Your task to perform on an android device: Add razer thresher to the cart on bestbuy Image 0: 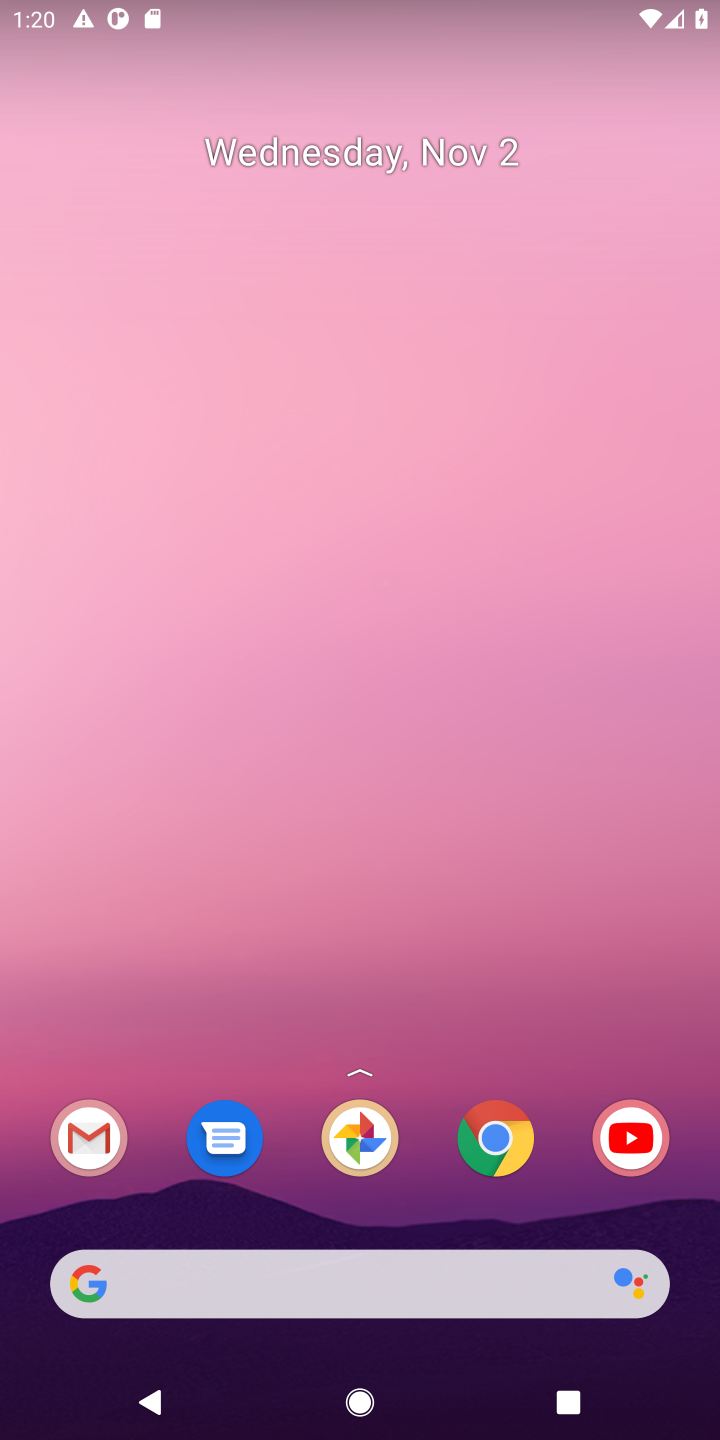
Step 0: click (488, 1152)
Your task to perform on an android device: Add razer thresher to the cart on bestbuy Image 1: 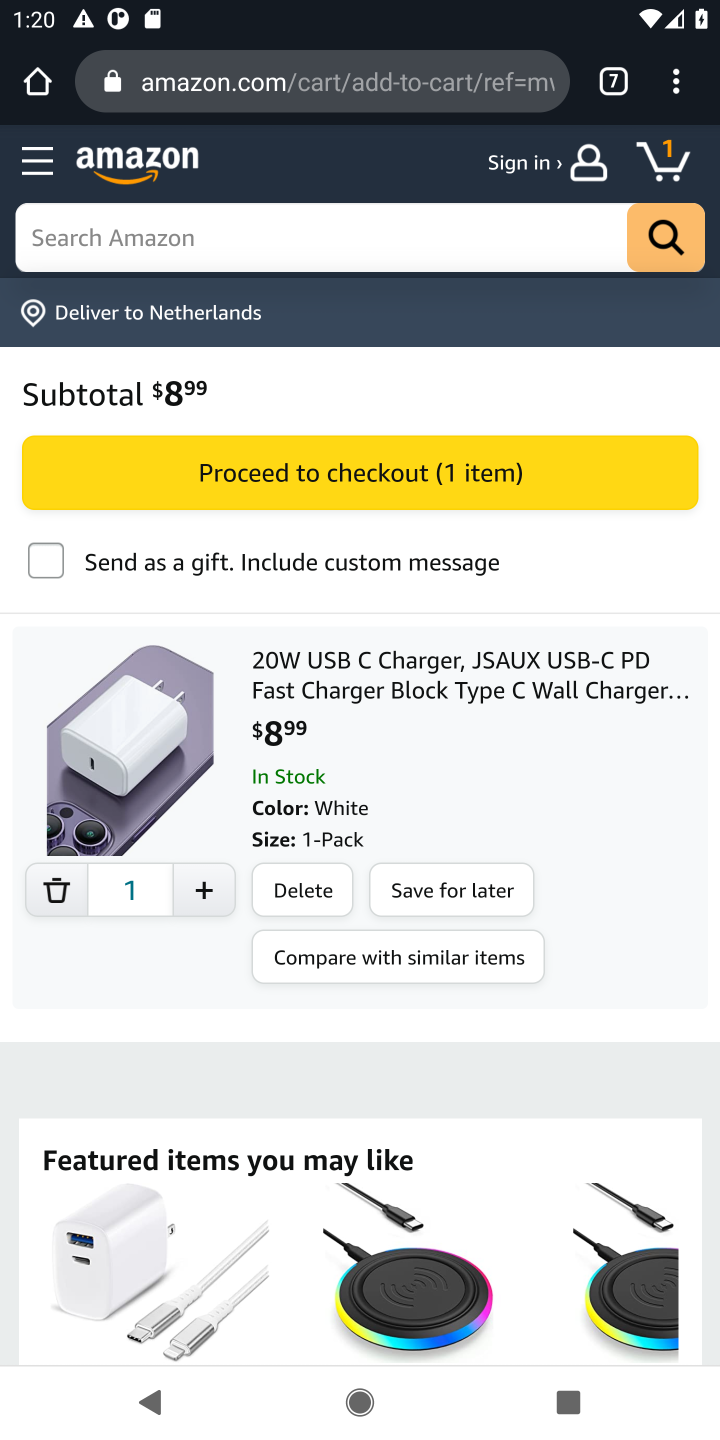
Step 1: click (619, 79)
Your task to perform on an android device: Add razer thresher to the cart on bestbuy Image 2: 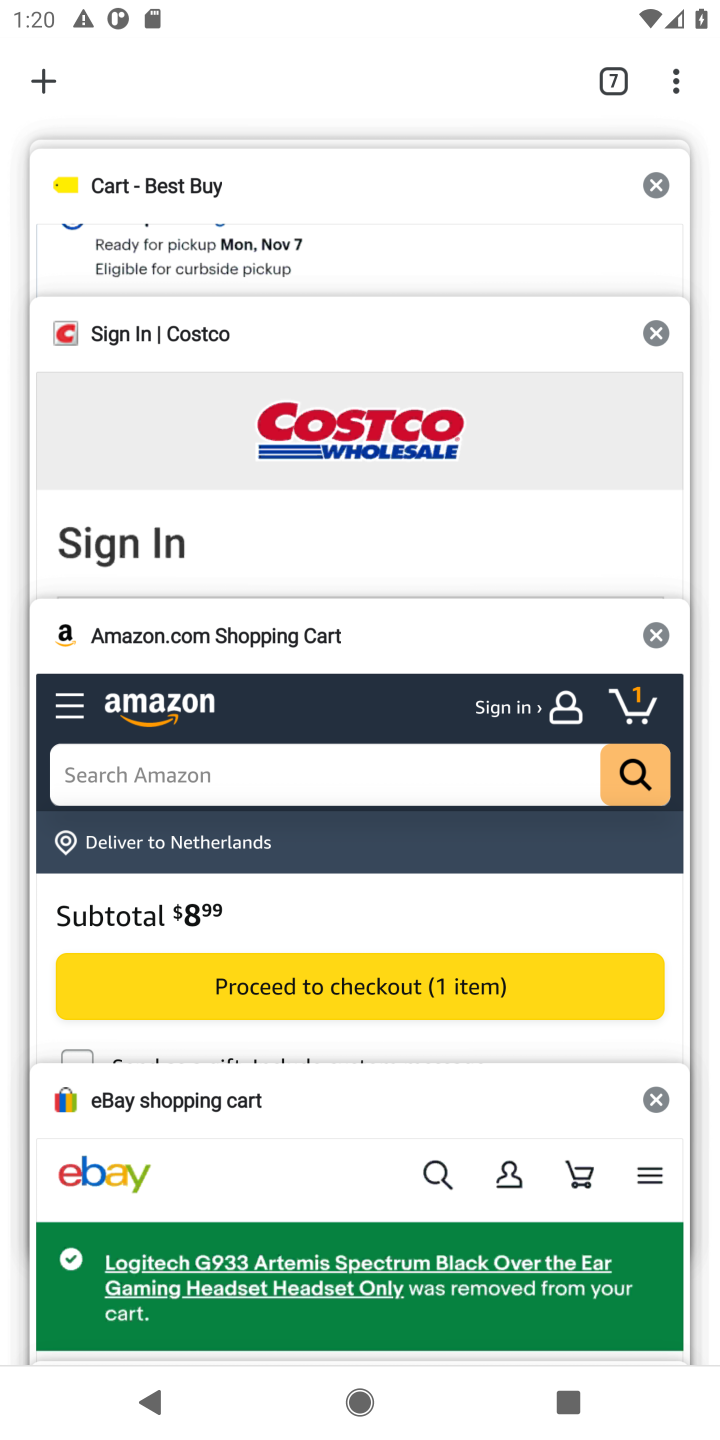
Step 2: click (404, 235)
Your task to perform on an android device: Add razer thresher to the cart on bestbuy Image 3: 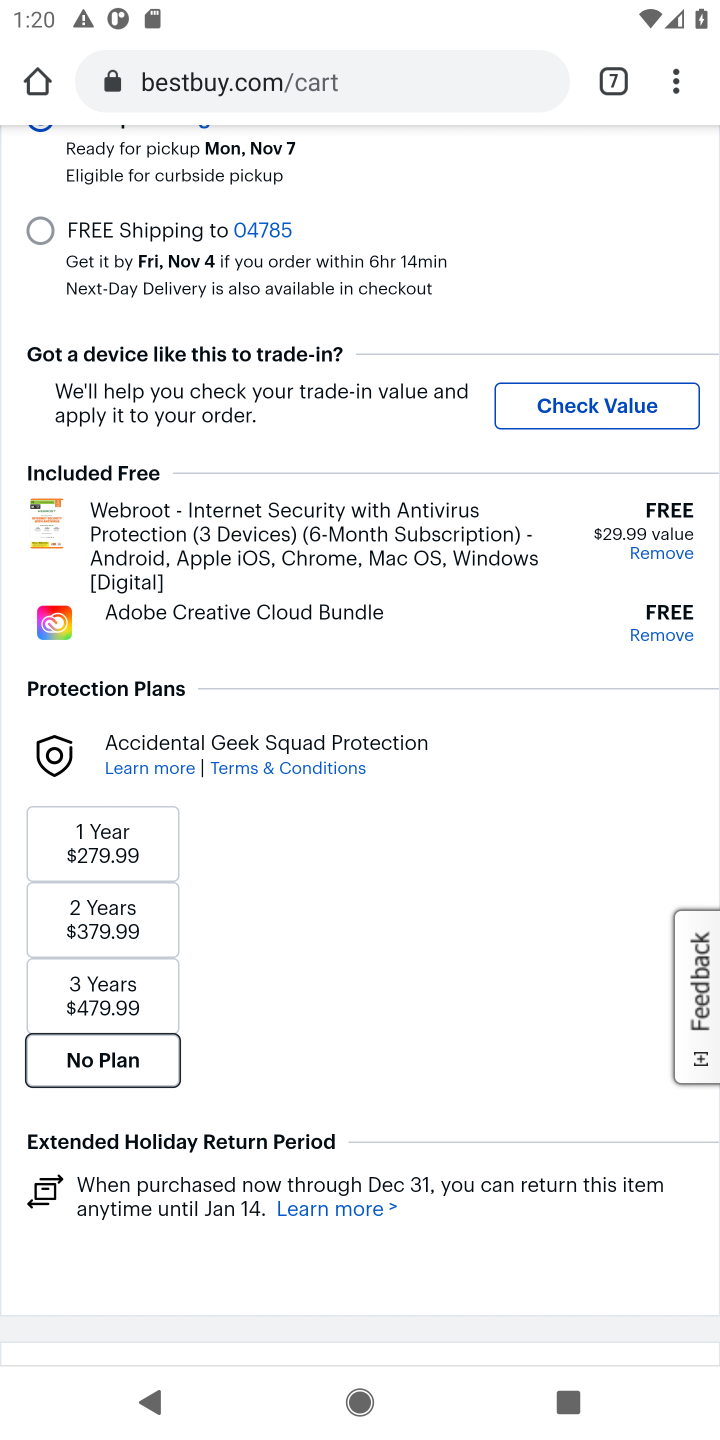
Step 3: drag from (542, 200) to (427, 805)
Your task to perform on an android device: Add razer thresher to the cart on bestbuy Image 4: 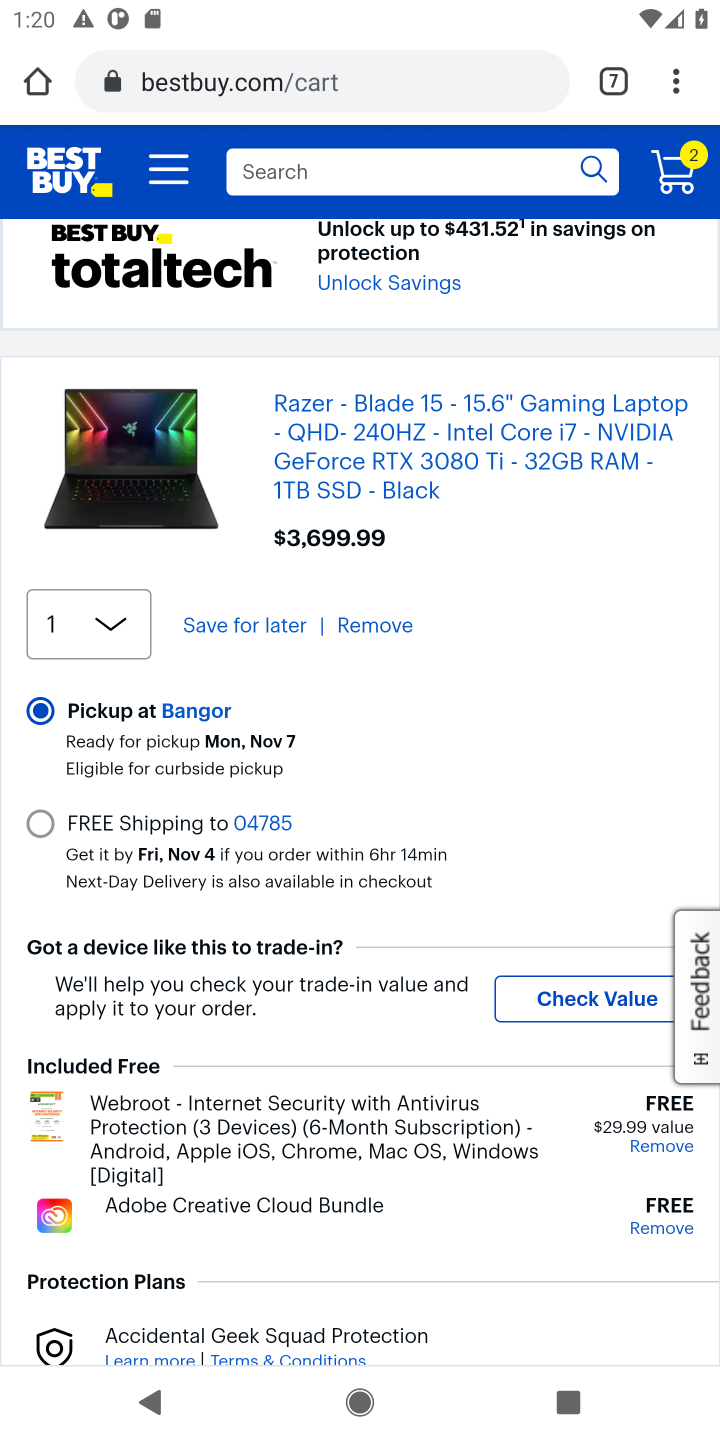
Step 4: click (510, 163)
Your task to perform on an android device: Add razer thresher to the cart on bestbuy Image 5: 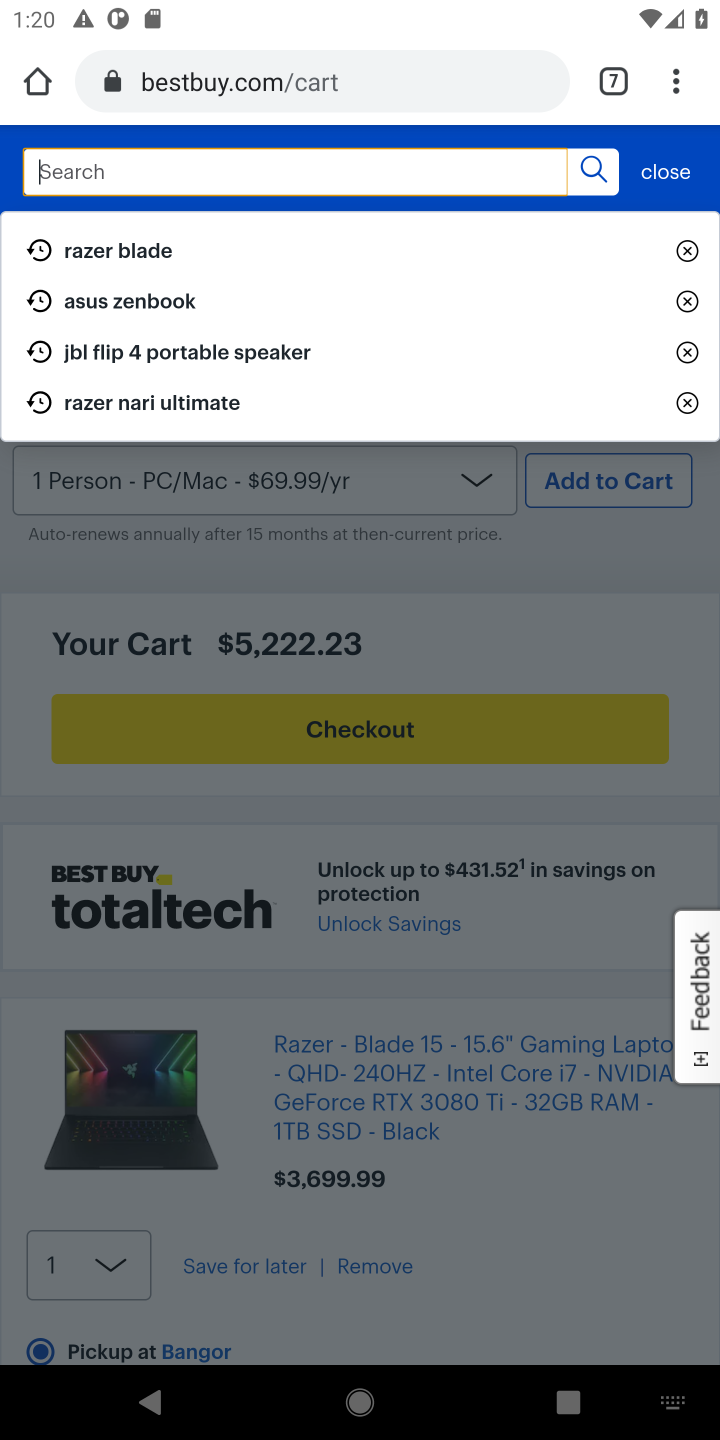
Step 5: type "razer thresher"
Your task to perform on an android device: Add razer thresher to the cart on bestbuy Image 6: 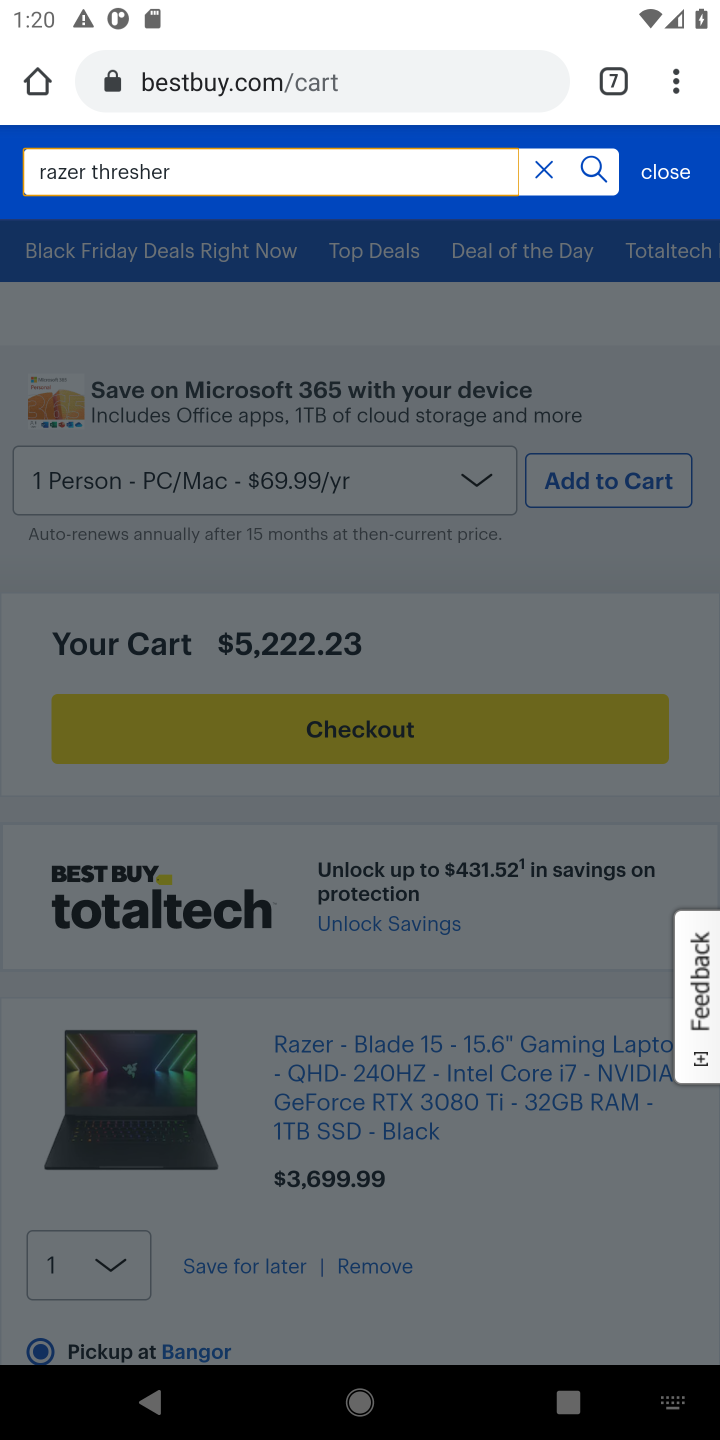
Step 6: click (603, 168)
Your task to perform on an android device: Add razer thresher to the cart on bestbuy Image 7: 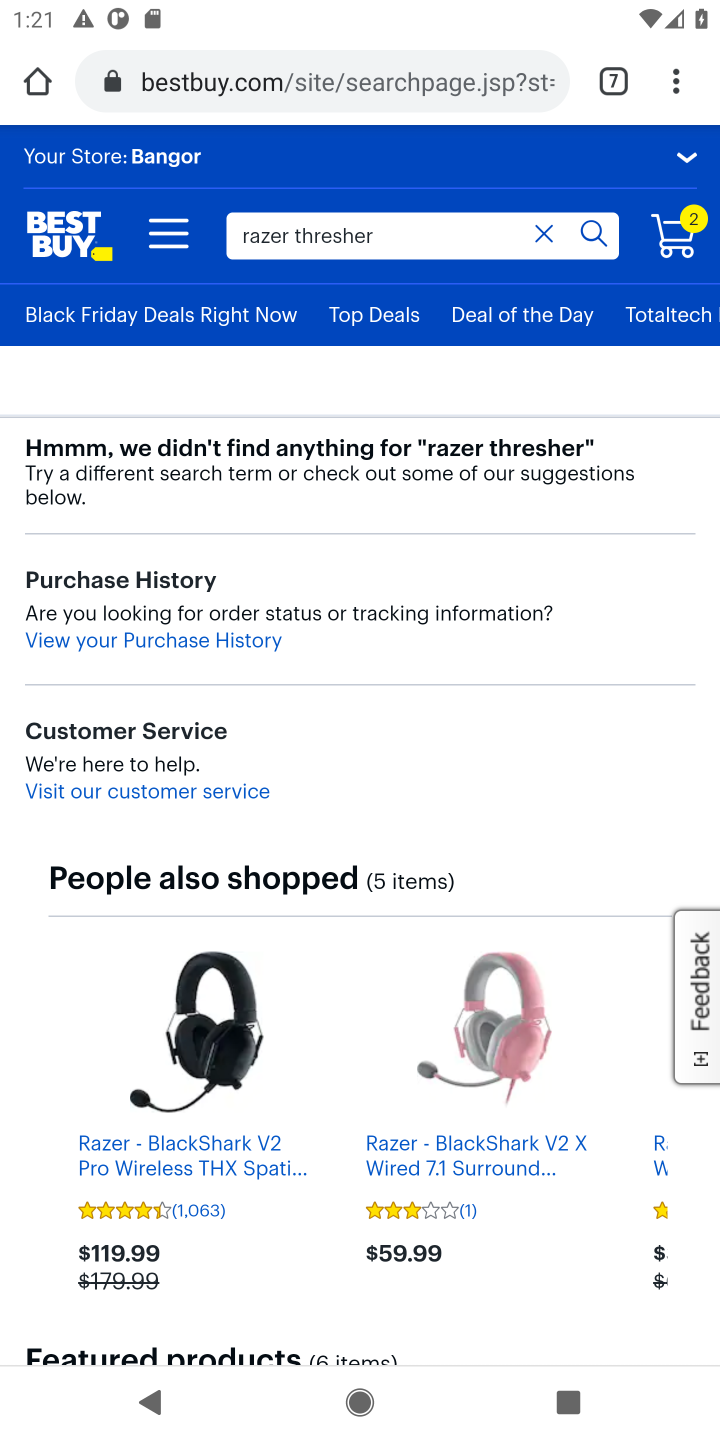
Step 7: click (545, 243)
Your task to perform on an android device: Add razer thresher to the cart on bestbuy Image 8: 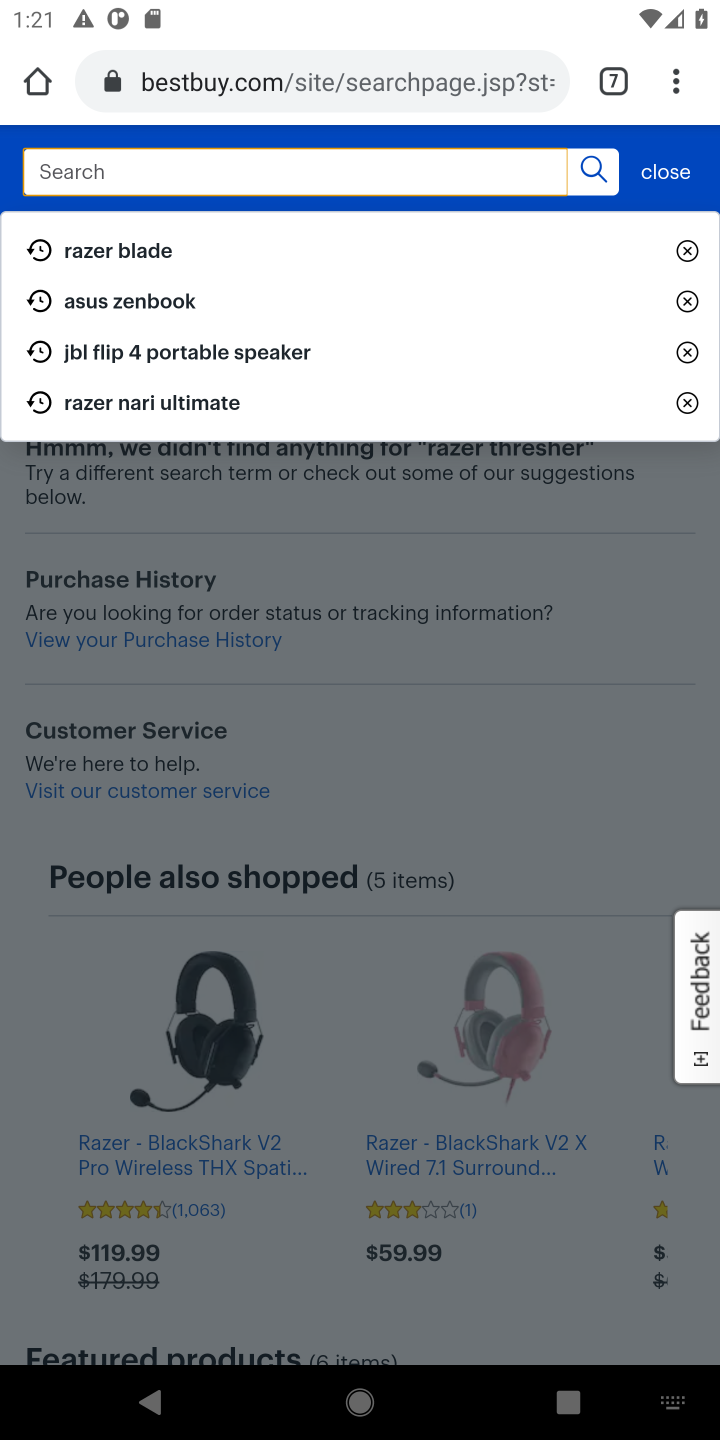
Step 8: type "thresher"
Your task to perform on an android device: Add razer thresher to the cart on bestbuy Image 9: 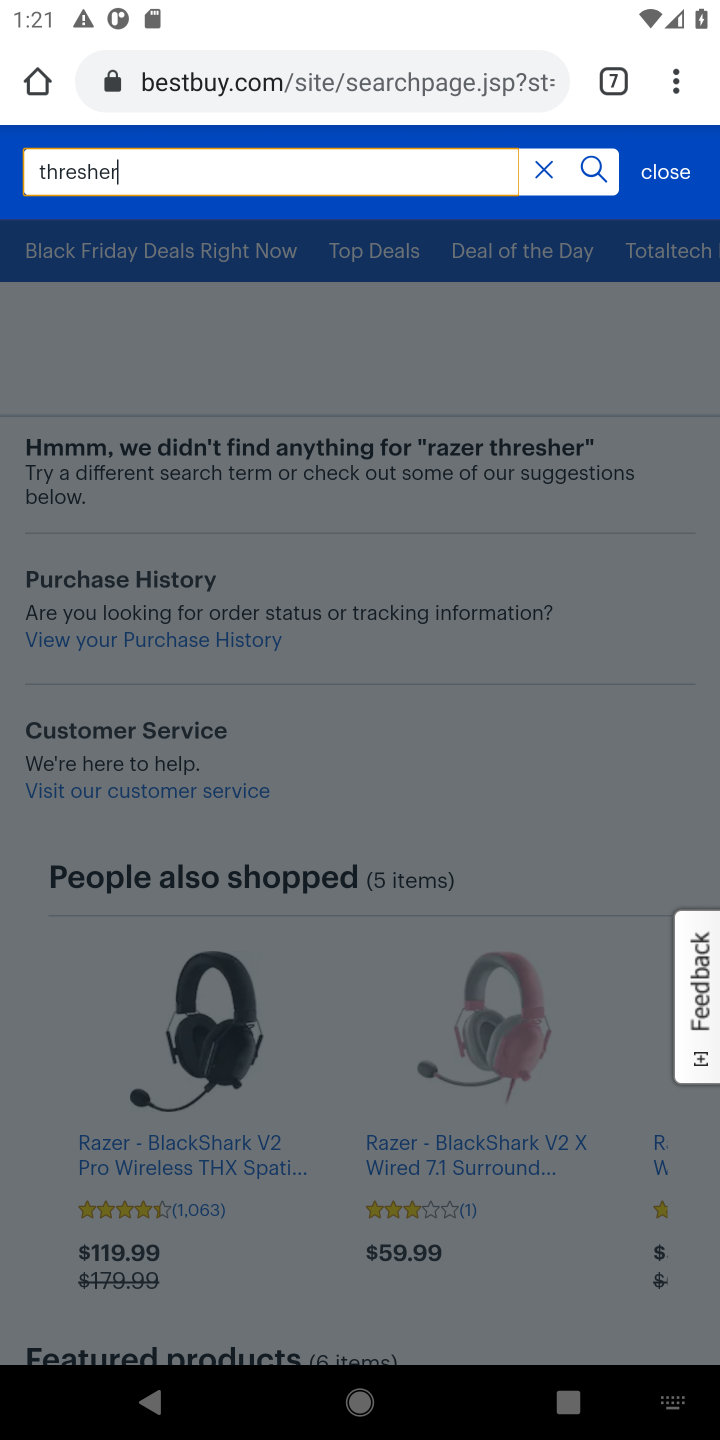
Step 9: click (596, 162)
Your task to perform on an android device: Add razer thresher to the cart on bestbuy Image 10: 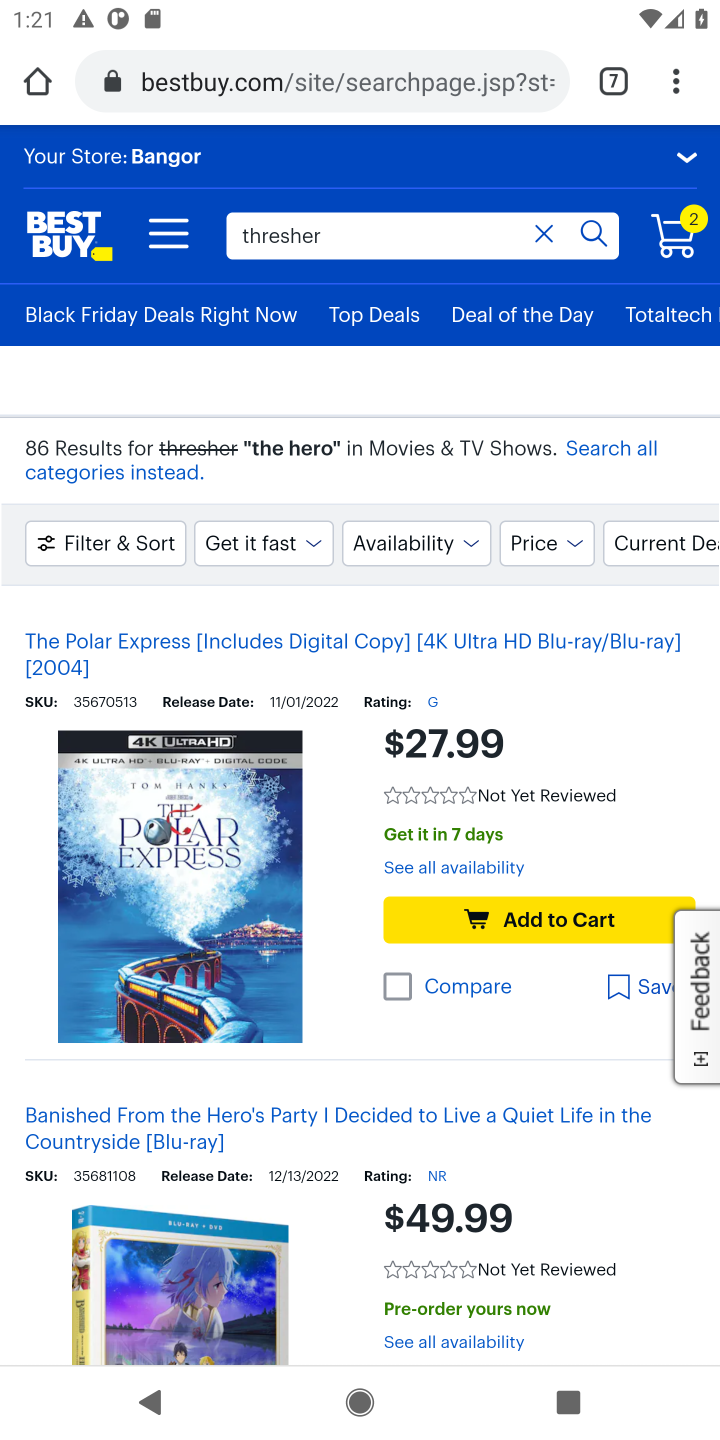
Step 10: click (583, 938)
Your task to perform on an android device: Add razer thresher to the cart on bestbuy Image 11: 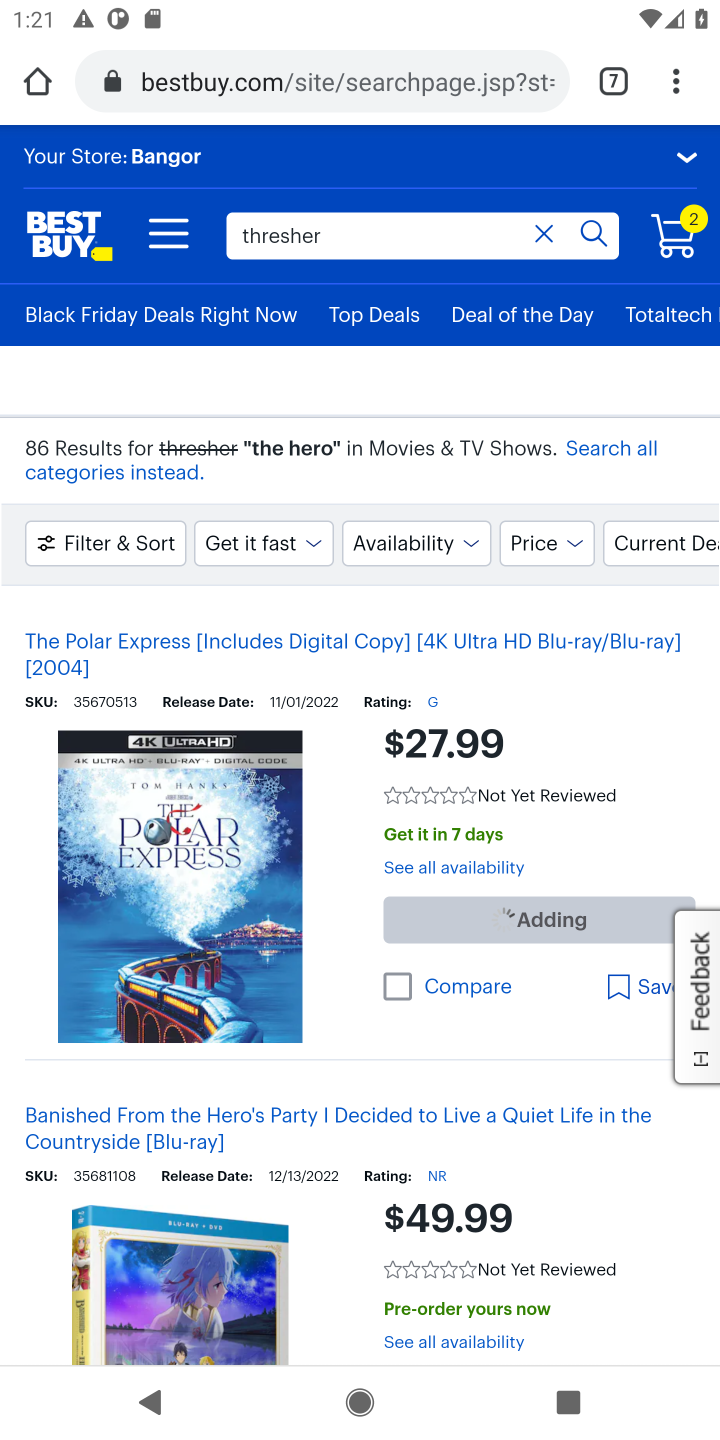
Step 11: task complete